Your task to perform on an android device: check google app version Image 0: 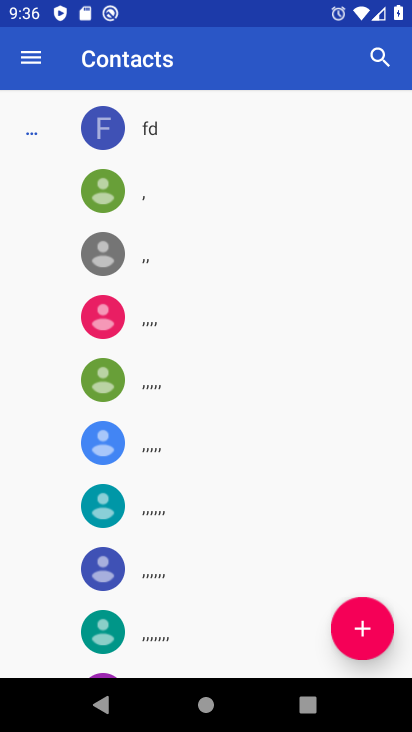
Step 0: press back button
Your task to perform on an android device: check google app version Image 1: 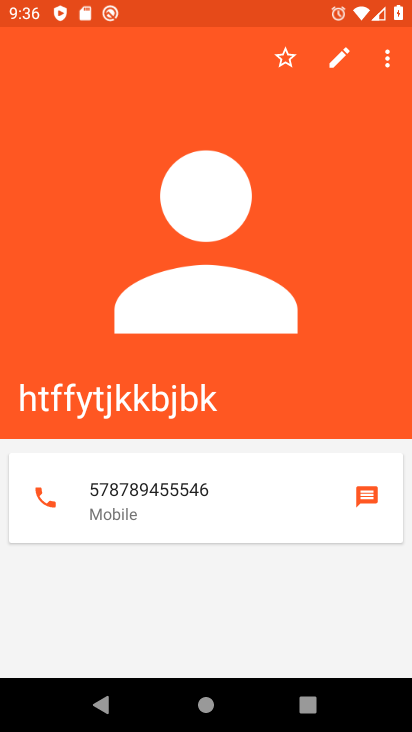
Step 1: press back button
Your task to perform on an android device: check google app version Image 2: 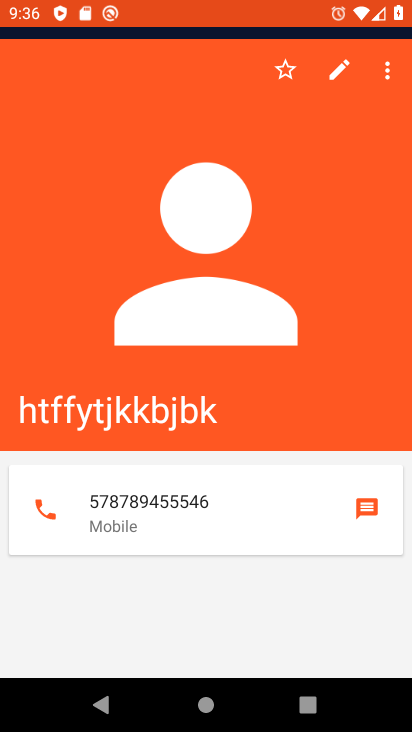
Step 2: press back button
Your task to perform on an android device: check google app version Image 3: 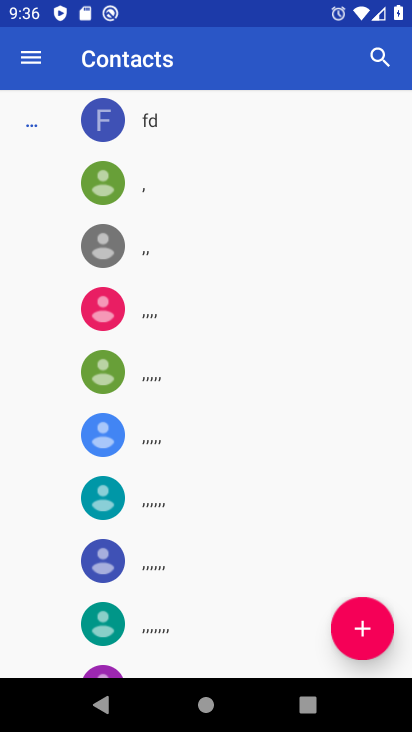
Step 3: press back button
Your task to perform on an android device: check google app version Image 4: 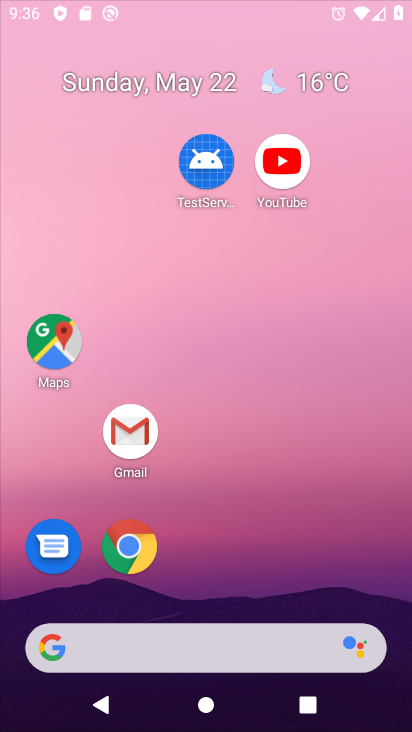
Step 4: press back button
Your task to perform on an android device: check google app version Image 5: 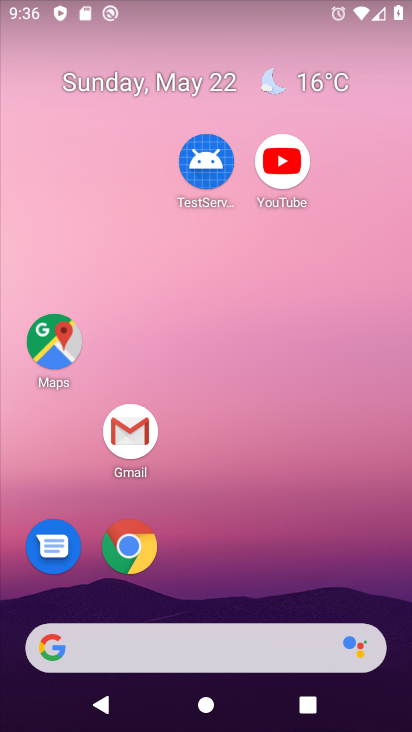
Step 5: drag from (263, 707) to (189, 87)
Your task to perform on an android device: check google app version Image 6: 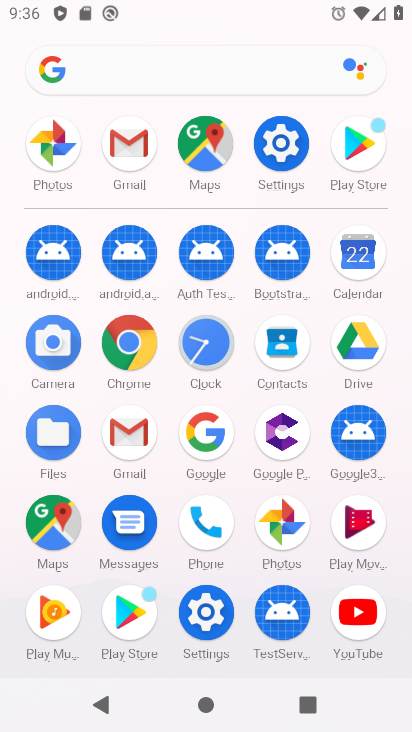
Step 6: click (215, 443)
Your task to perform on an android device: check google app version Image 7: 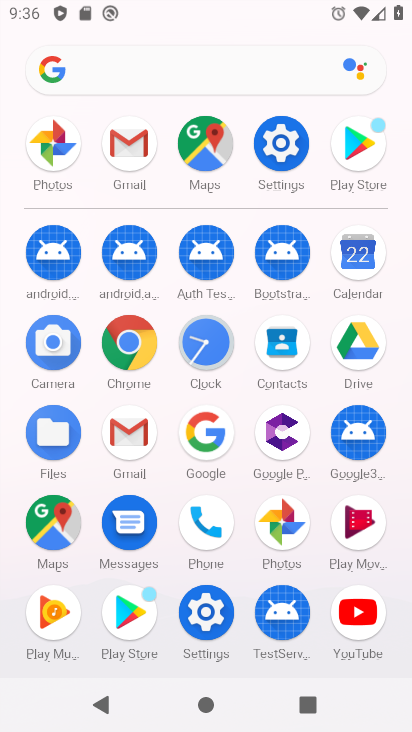
Step 7: click (215, 443)
Your task to perform on an android device: check google app version Image 8: 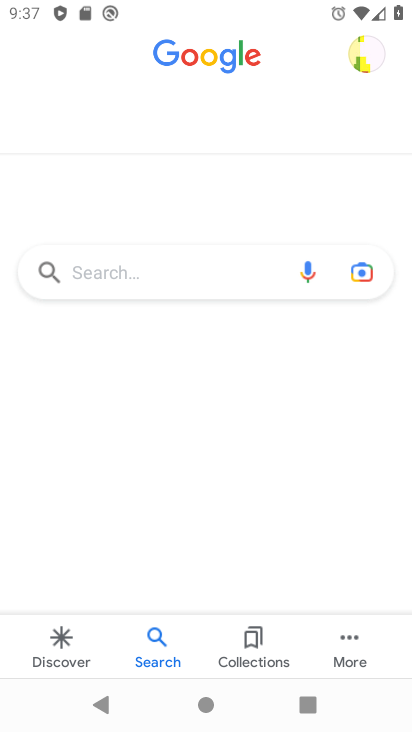
Step 8: click (353, 644)
Your task to perform on an android device: check google app version Image 9: 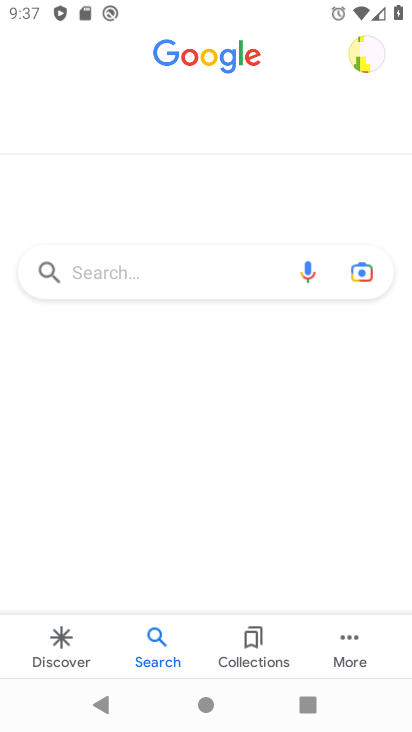
Step 9: click (353, 644)
Your task to perform on an android device: check google app version Image 10: 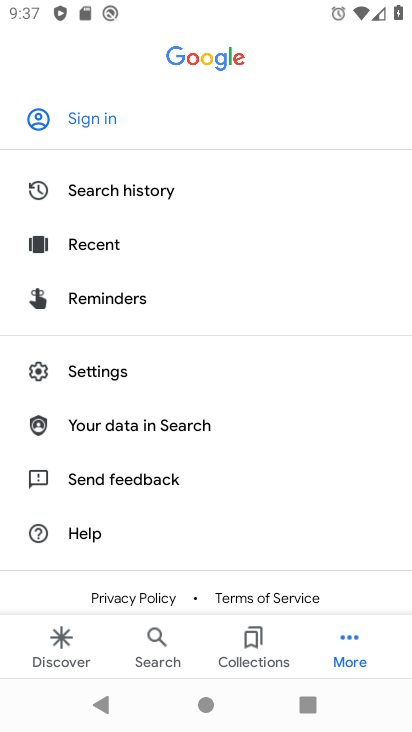
Step 10: click (353, 644)
Your task to perform on an android device: check google app version Image 11: 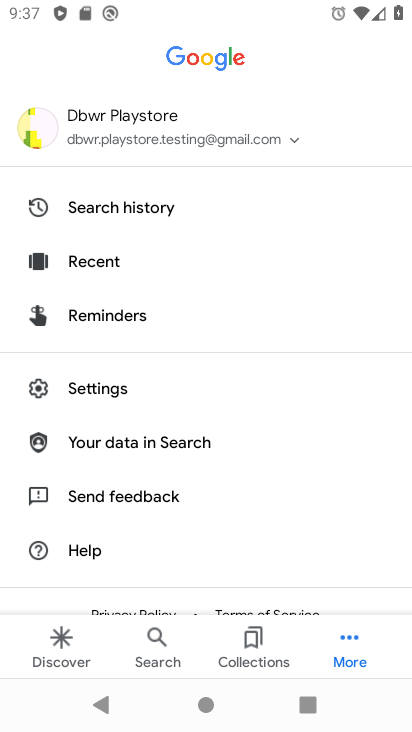
Step 11: click (353, 644)
Your task to perform on an android device: check google app version Image 12: 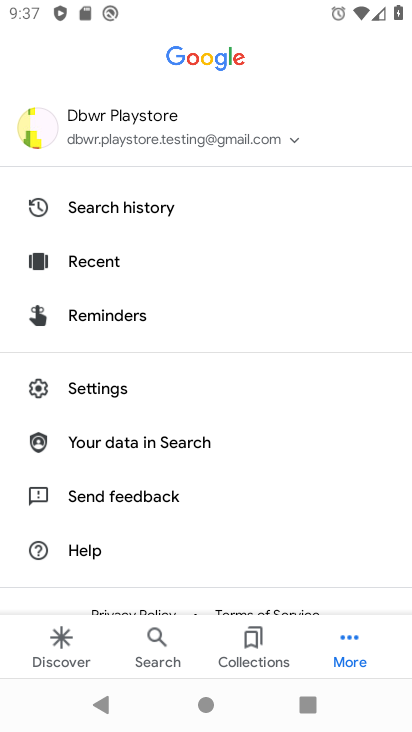
Step 12: click (92, 384)
Your task to perform on an android device: check google app version Image 13: 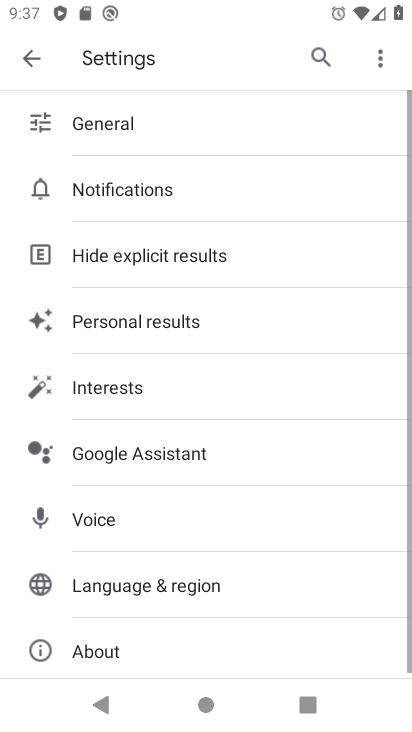
Step 13: drag from (140, 594) to (134, 145)
Your task to perform on an android device: check google app version Image 14: 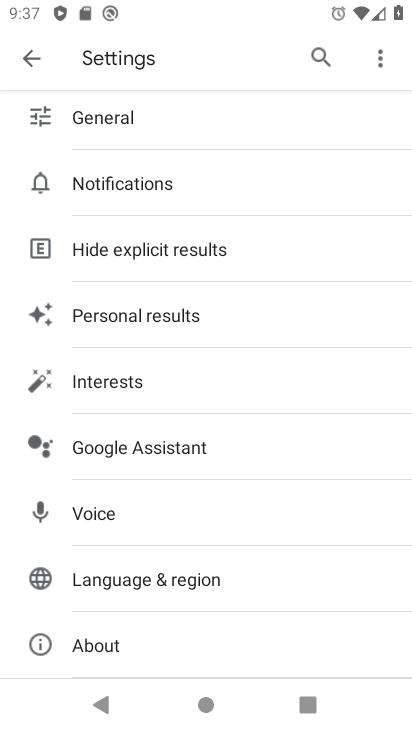
Step 14: drag from (153, 468) to (106, 83)
Your task to perform on an android device: check google app version Image 15: 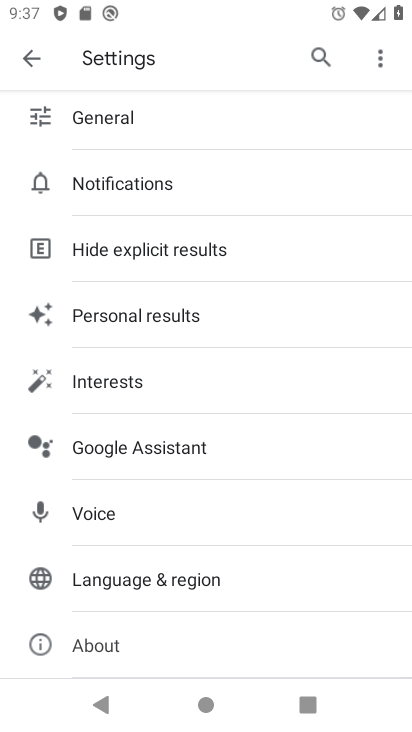
Step 15: drag from (125, 390) to (170, 42)
Your task to perform on an android device: check google app version Image 16: 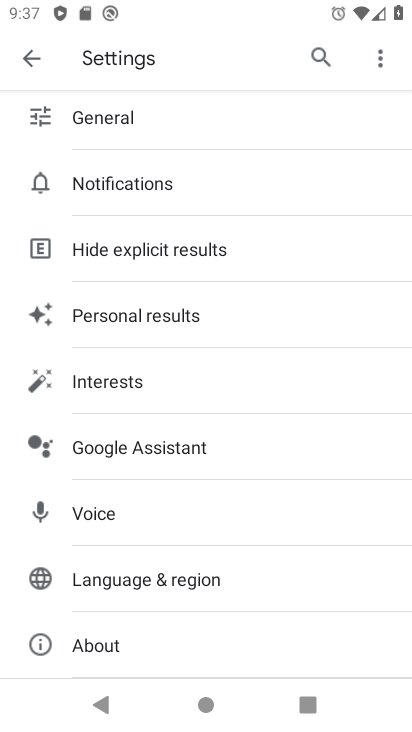
Step 16: click (100, 639)
Your task to perform on an android device: check google app version Image 17: 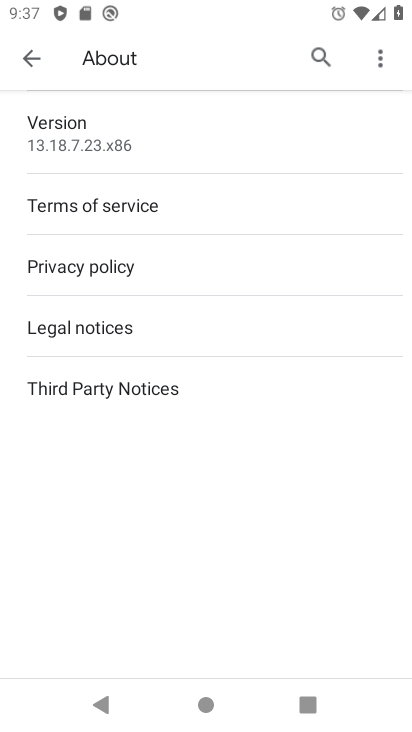
Step 17: task complete